Your task to perform on an android device: What is the recent news? Image 0: 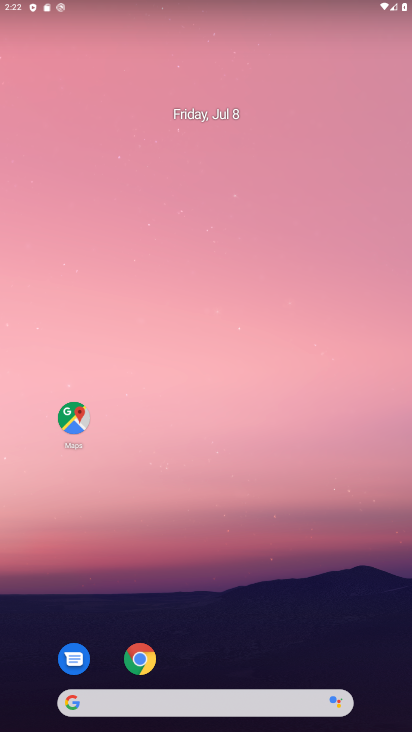
Step 0: drag from (8, 267) to (352, 274)
Your task to perform on an android device: What is the recent news? Image 1: 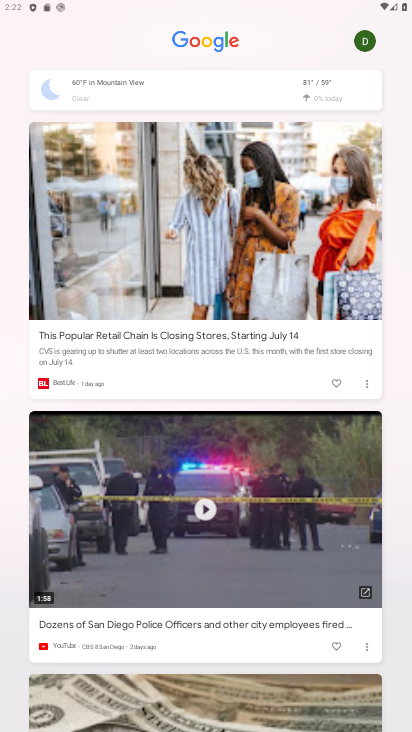
Step 1: task complete